Your task to perform on an android device: change the clock display to show seconds Image 0: 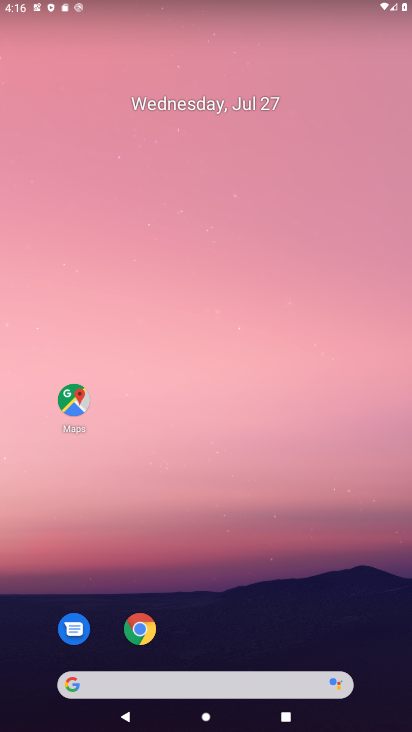
Step 0: drag from (227, 648) to (410, 156)
Your task to perform on an android device: change the clock display to show seconds Image 1: 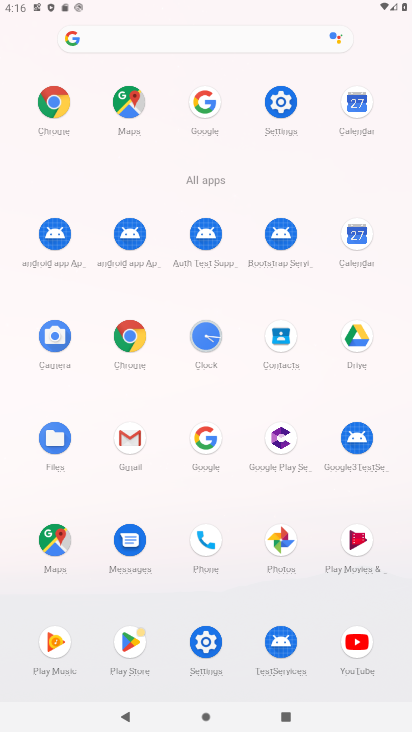
Step 1: click (201, 333)
Your task to perform on an android device: change the clock display to show seconds Image 2: 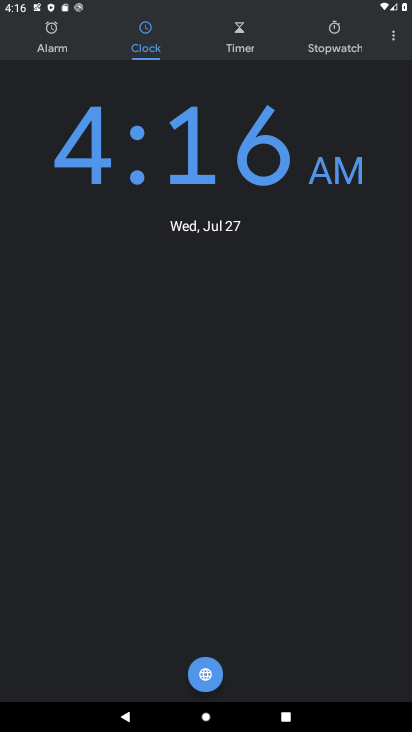
Step 2: click (389, 37)
Your task to perform on an android device: change the clock display to show seconds Image 3: 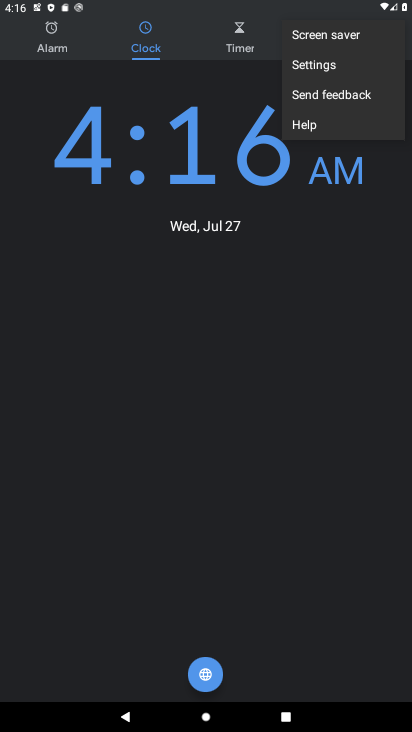
Step 3: click (309, 74)
Your task to perform on an android device: change the clock display to show seconds Image 4: 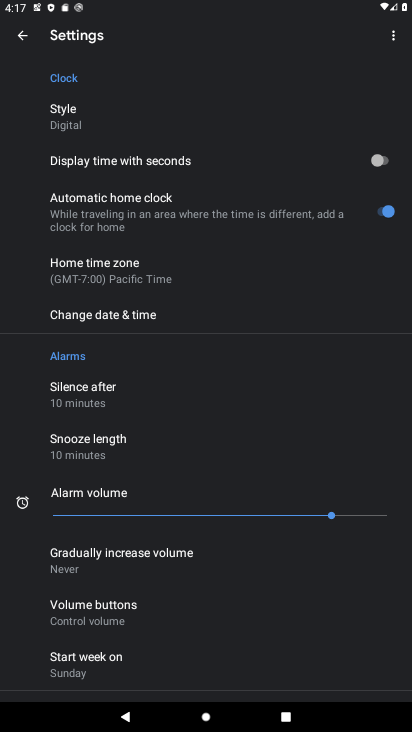
Step 4: click (374, 170)
Your task to perform on an android device: change the clock display to show seconds Image 5: 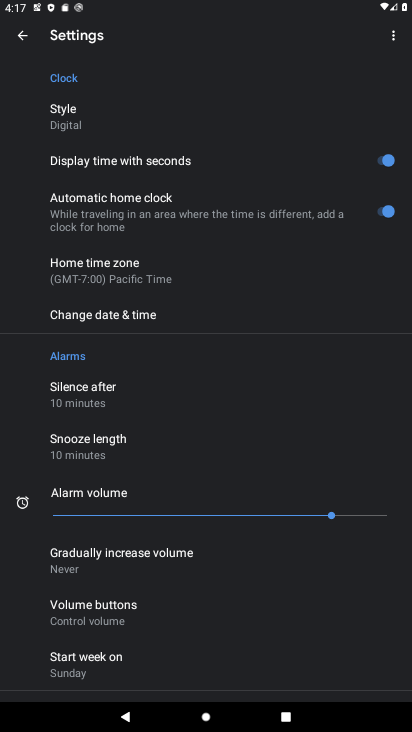
Step 5: task complete